Your task to perform on an android device: change timer sound Image 0: 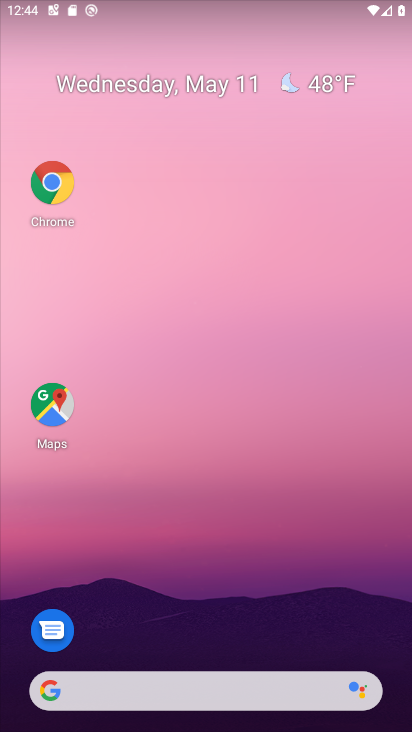
Step 0: drag from (231, 665) to (248, 16)
Your task to perform on an android device: change timer sound Image 1: 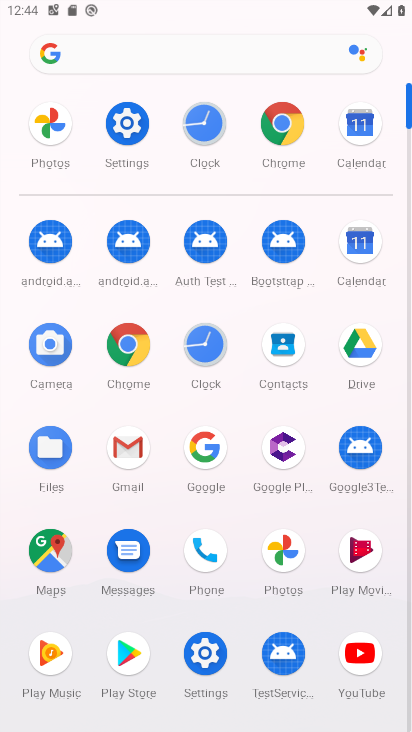
Step 1: click (211, 350)
Your task to perform on an android device: change timer sound Image 2: 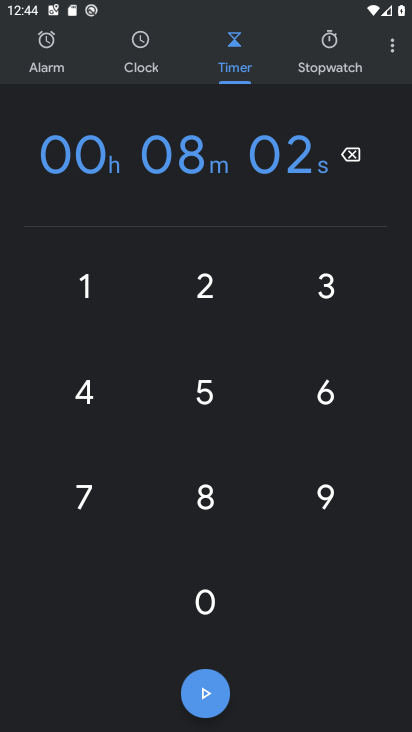
Step 2: click (383, 59)
Your task to perform on an android device: change timer sound Image 3: 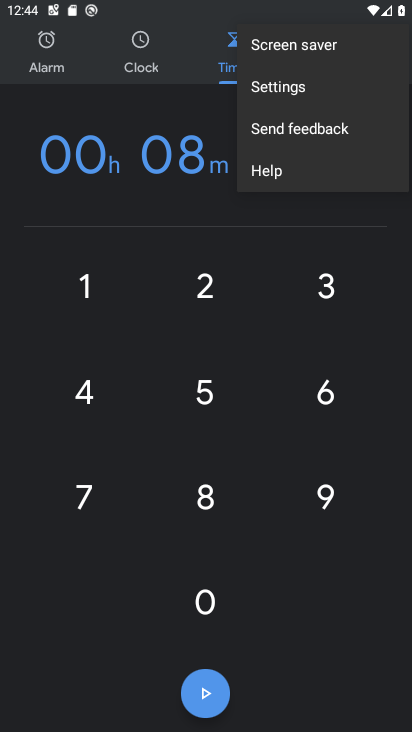
Step 3: click (287, 90)
Your task to perform on an android device: change timer sound Image 4: 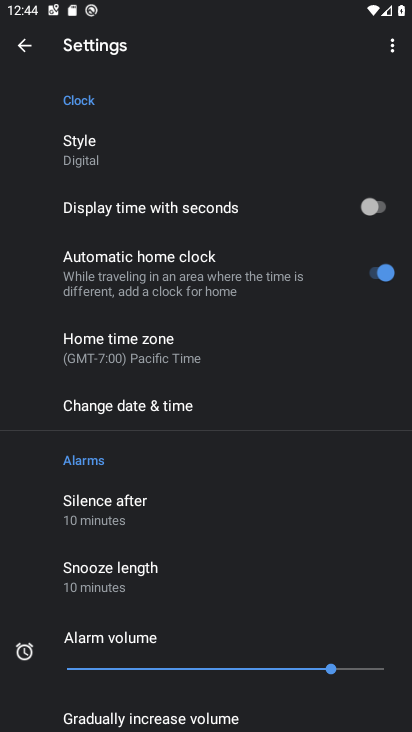
Step 4: click (125, 412)
Your task to perform on an android device: change timer sound Image 5: 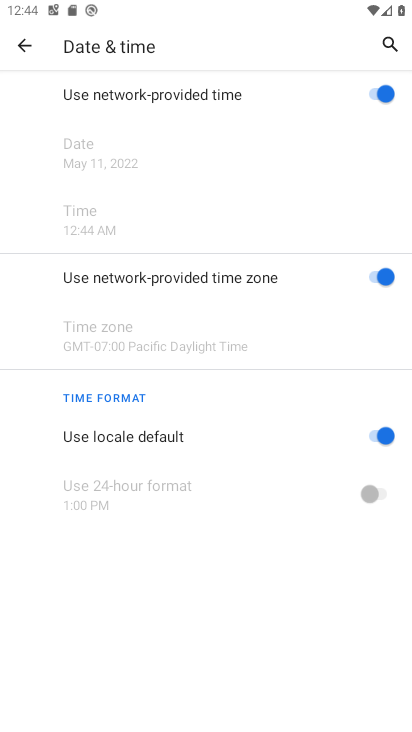
Step 5: click (25, 45)
Your task to perform on an android device: change timer sound Image 6: 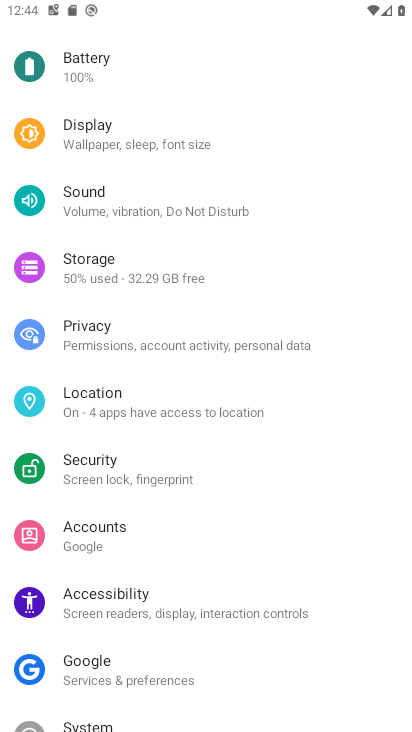
Step 6: press back button
Your task to perform on an android device: change timer sound Image 7: 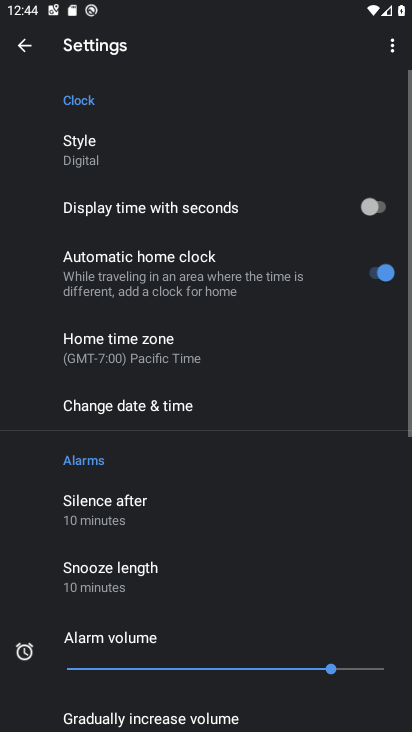
Step 7: drag from (211, 524) to (172, 75)
Your task to perform on an android device: change timer sound Image 8: 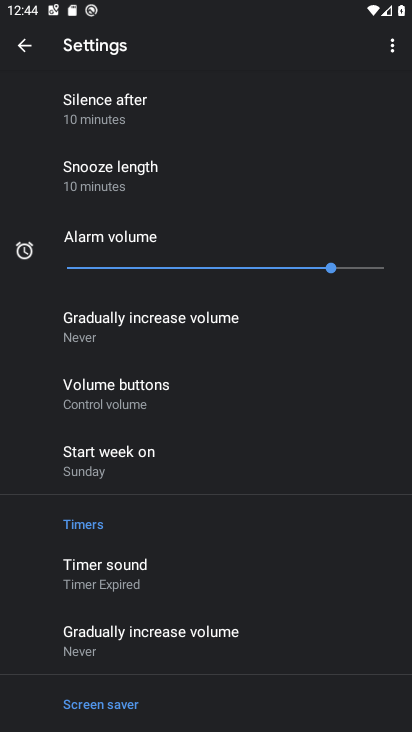
Step 8: click (128, 553)
Your task to perform on an android device: change timer sound Image 9: 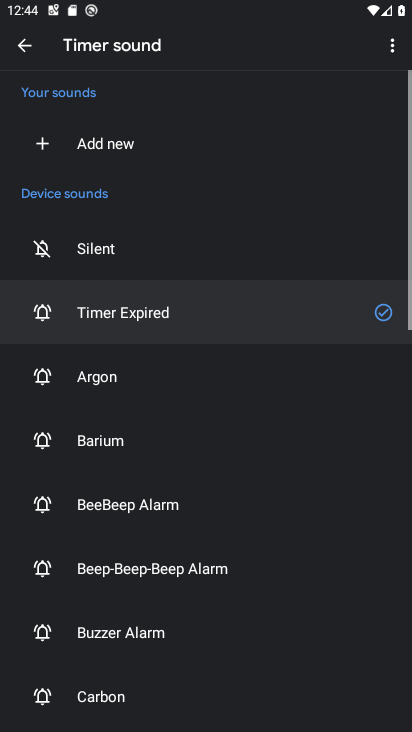
Step 9: click (121, 372)
Your task to perform on an android device: change timer sound Image 10: 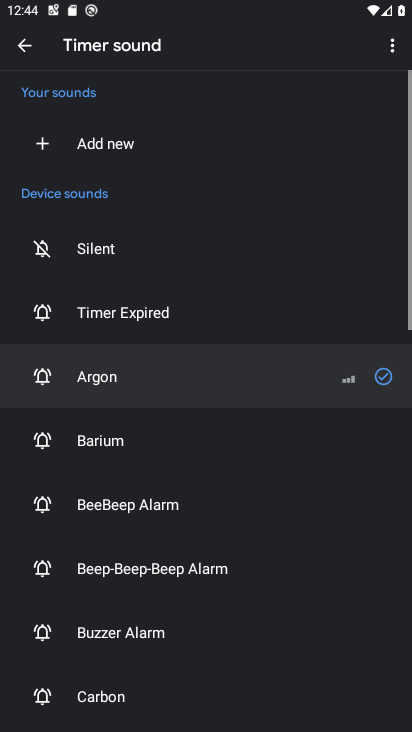
Step 10: task complete